Your task to perform on an android device: open wifi settings Image 0: 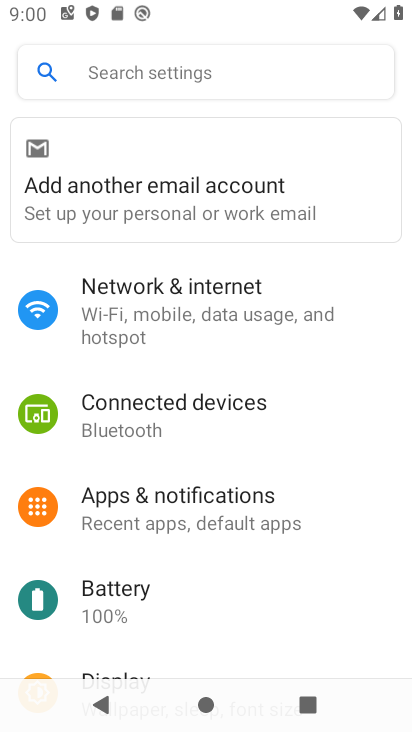
Step 0: press back button
Your task to perform on an android device: open wifi settings Image 1: 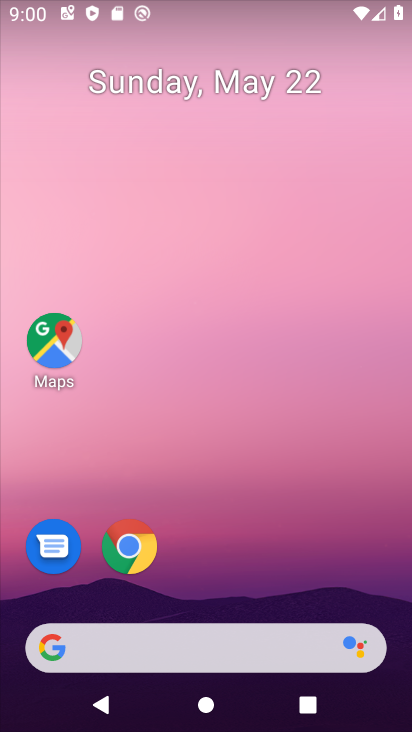
Step 1: drag from (96, 33) to (111, 511)
Your task to perform on an android device: open wifi settings Image 2: 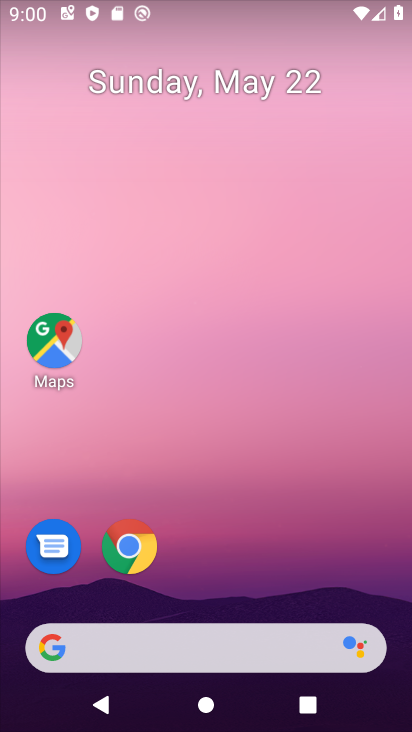
Step 2: click (109, 377)
Your task to perform on an android device: open wifi settings Image 3: 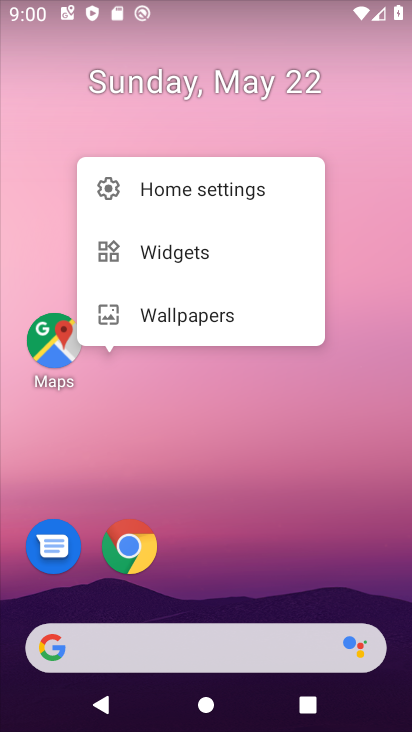
Step 3: click (31, 114)
Your task to perform on an android device: open wifi settings Image 4: 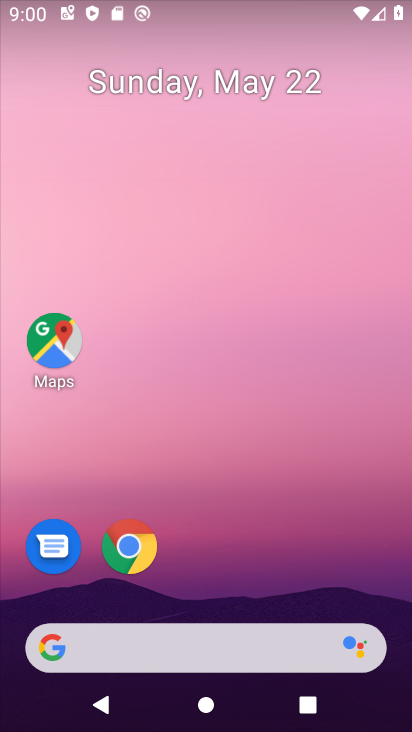
Step 4: drag from (90, 180) to (138, 460)
Your task to perform on an android device: open wifi settings Image 5: 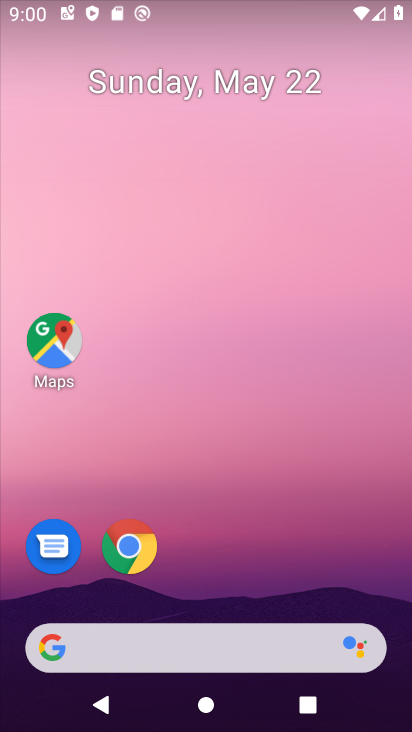
Step 5: drag from (81, 7) to (90, 532)
Your task to perform on an android device: open wifi settings Image 6: 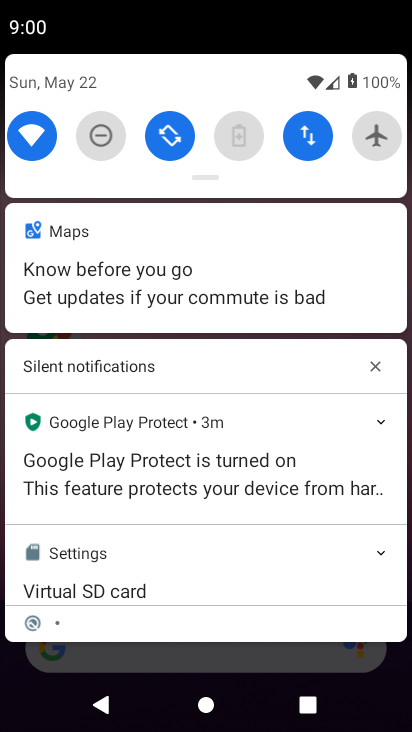
Step 6: click (41, 129)
Your task to perform on an android device: open wifi settings Image 7: 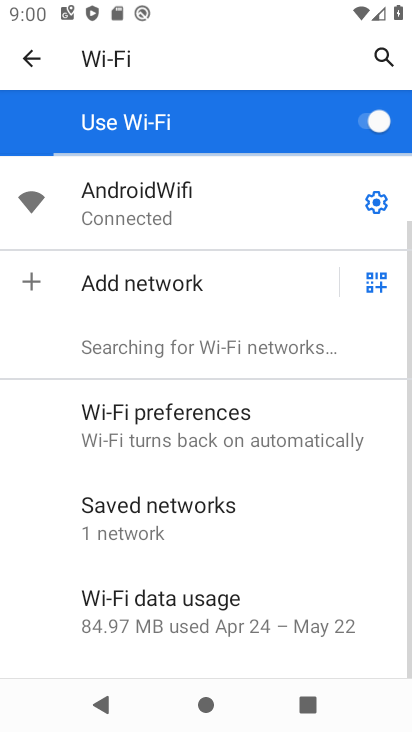
Step 7: task complete